Your task to perform on an android device: Open the Play Movies app and select the watchlist tab. Image 0: 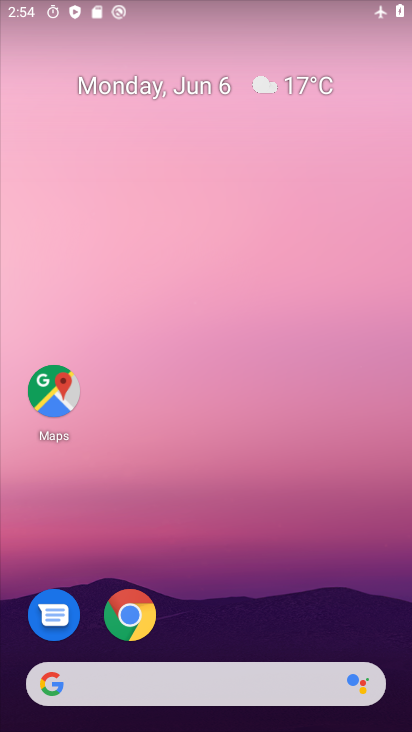
Step 0: drag from (210, 625) to (311, 120)
Your task to perform on an android device: Open the Play Movies app and select the watchlist tab. Image 1: 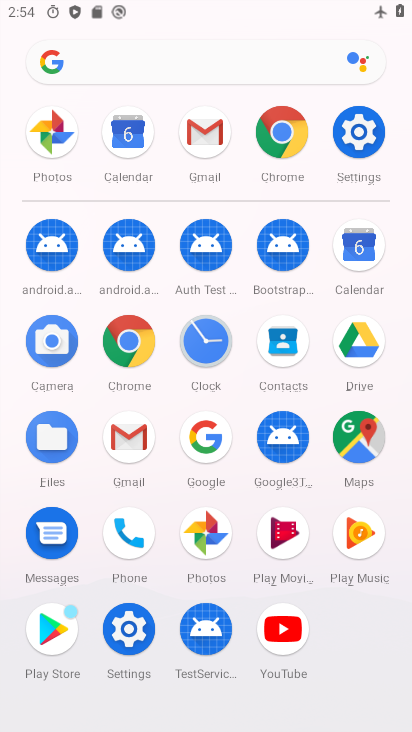
Step 1: click (290, 549)
Your task to perform on an android device: Open the Play Movies app and select the watchlist tab. Image 2: 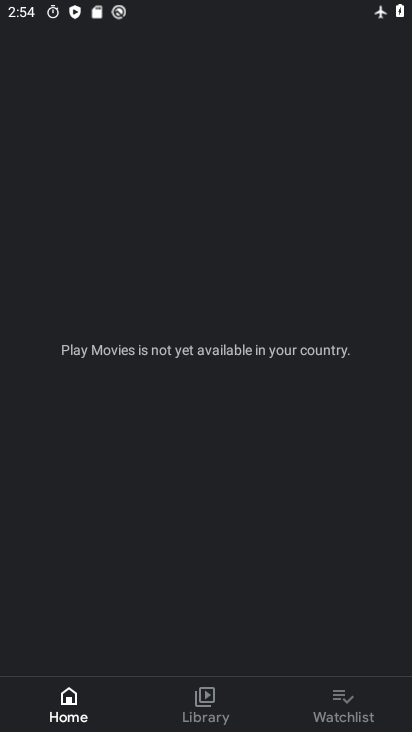
Step 2: click (360, 703)
Your task to perform on an android device: Open the Play Movies app and select the watchlist tab. Image 3: 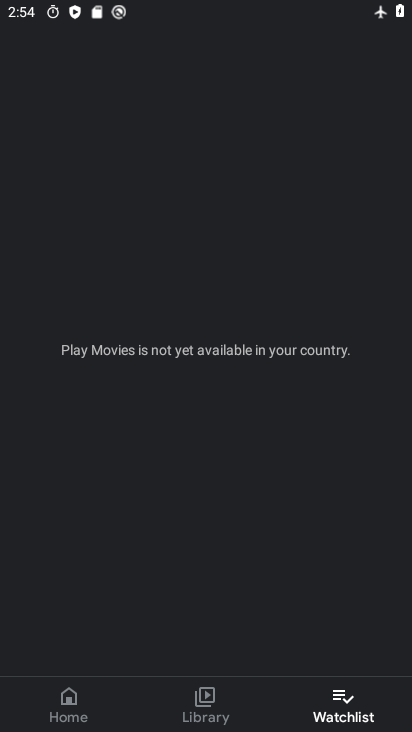
Step 3: task complete